Your task to perform on an android device: set an alarm Image 0: 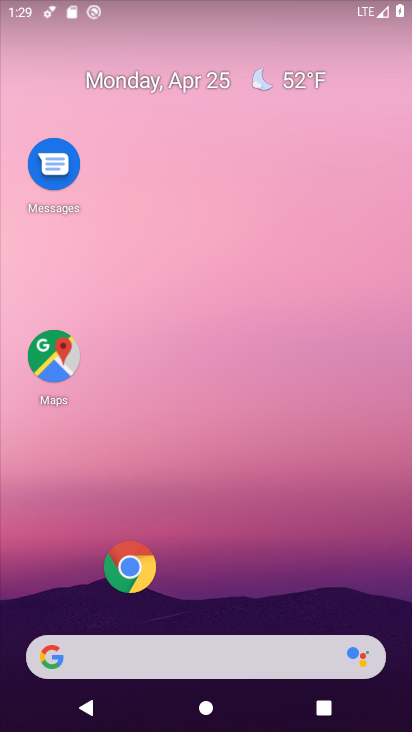
Step 0: drag from (231, 556) to (182, 12)
Your task to perform on an android device: set an alarm Image 1: 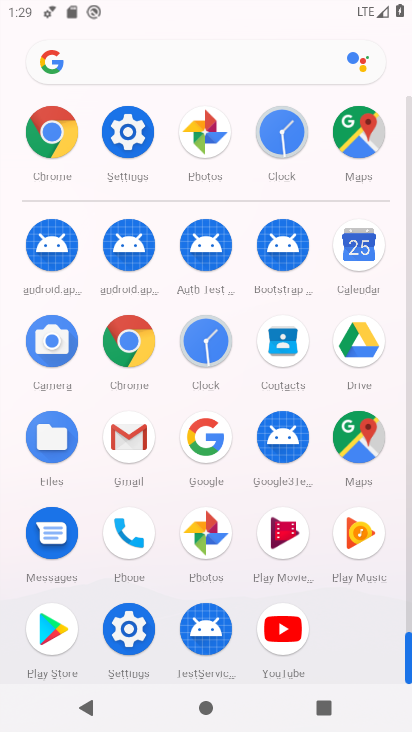
Step 1: click (215, 349)
Your task to perform on an android device: set an alarm Image 2: 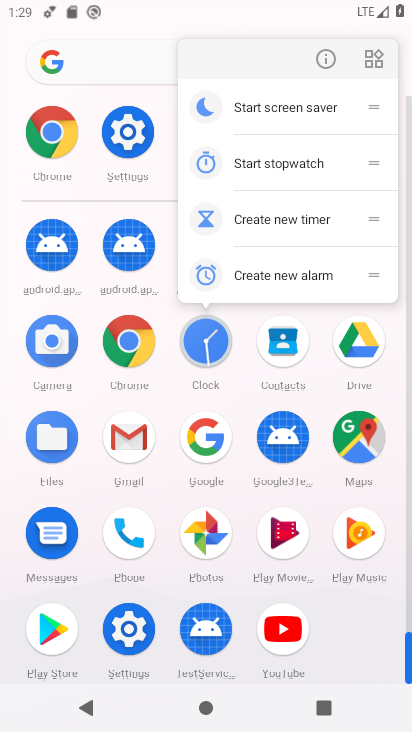
Step 2: click (210, 342)
Your task to perform on an android device: set an alarm Image 3: 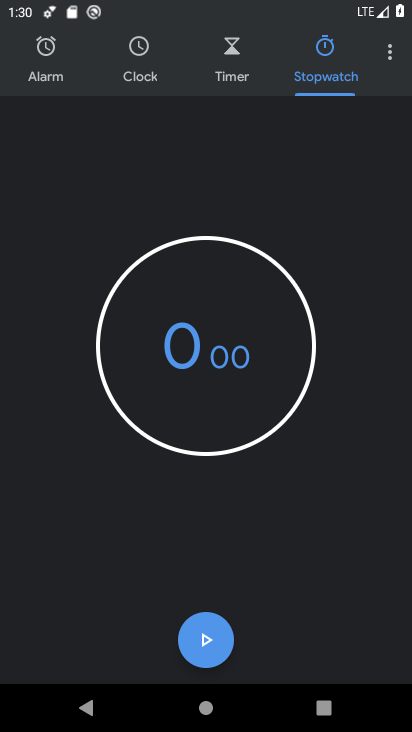
Step 3: click (64, 75)
Your task to perform on an android device: set an alarm Image 4: 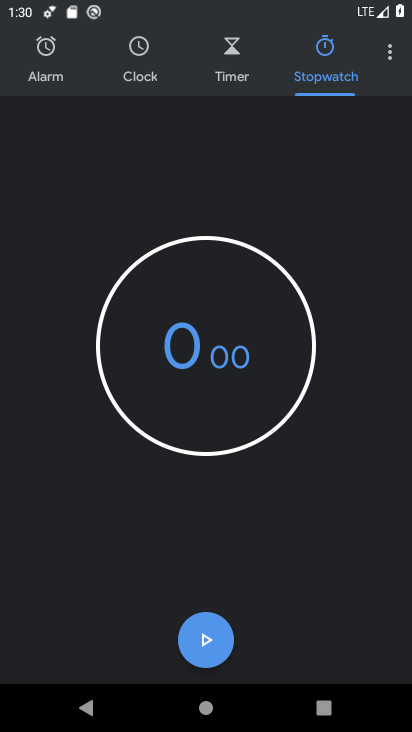
Step 4: click (49, 81)
Your task to perform on an android device: set an alarm Image 5: 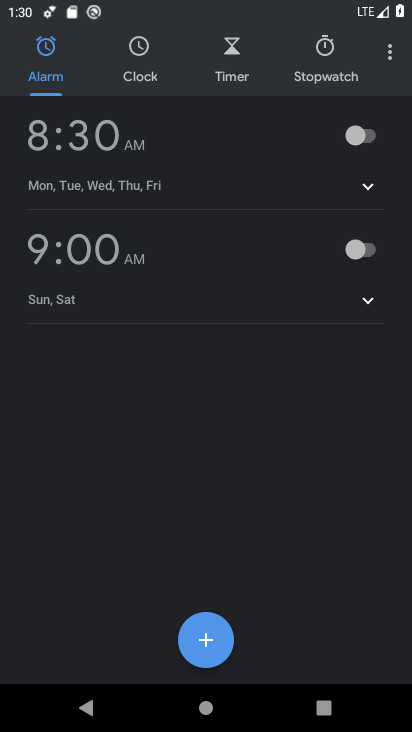
Step 5: click (201, 644)
Your task to perform on an android device: set an alarm Image 6: 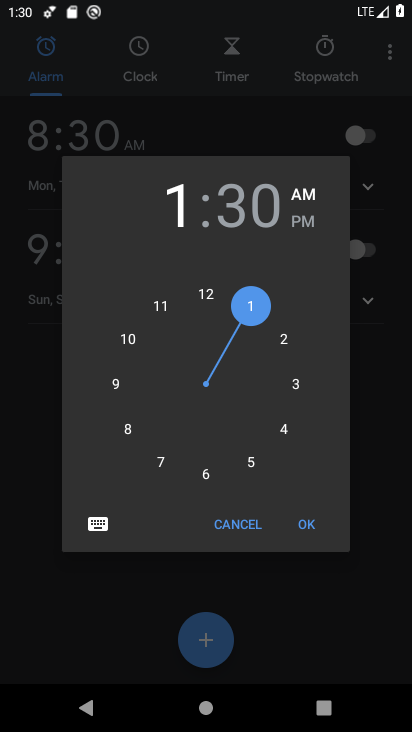
Step 6: click (284, 347)
Your task to perform on an android device: set an alarm Image 7: 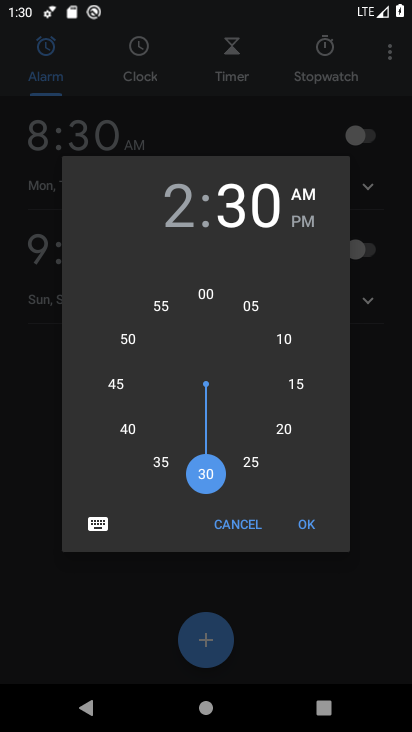
Step 7: click (312, 530)
Your task to perform on an android device: set an alarm Image 8: 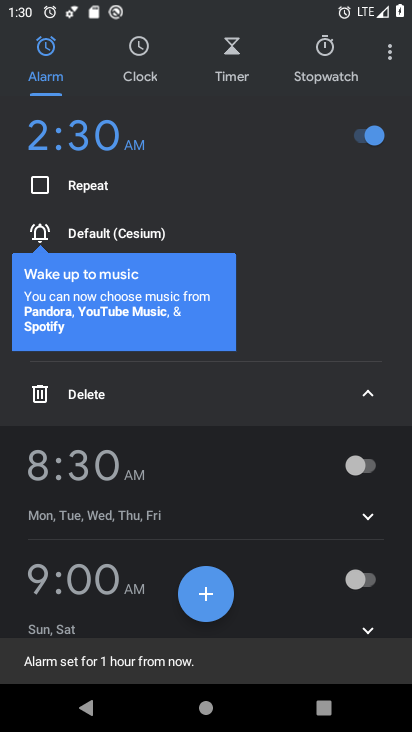
Step 8: task complete